Your task to perform on an android device: set the timer Image 0: 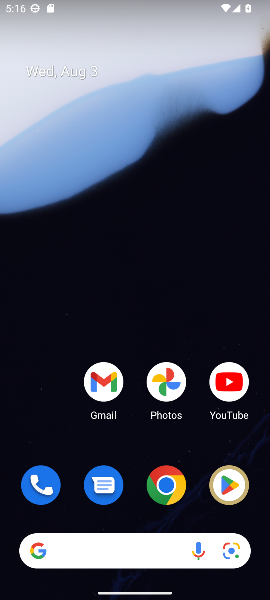
Step 0: drag from (112, 508) to (138, 1)
Your task to perform on an android device: set the timer Image 1: 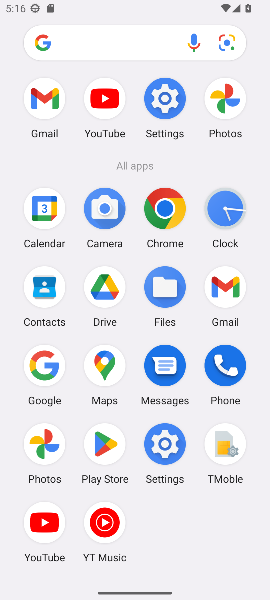
Step 1: click (221, 209)
Your task to perform on an android device: set the timer Image 2: 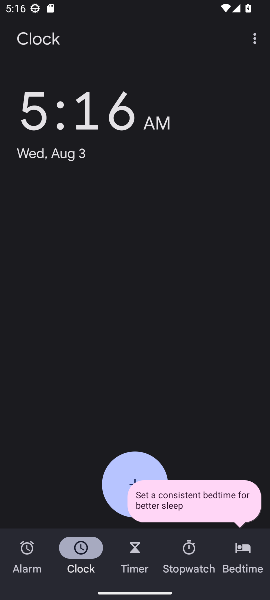
Step 2: click (137, 552)
Your task to perform on an android device: set the timer Image 3: 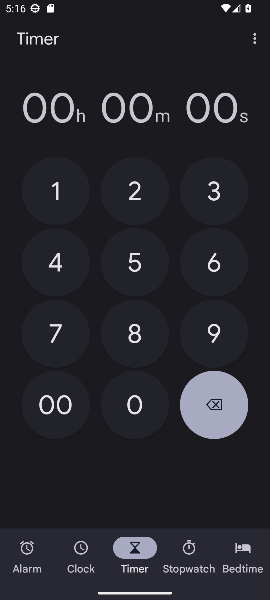
Step 3: click (136, 341)
Your task to perform on an android device: set the timer Image 4: 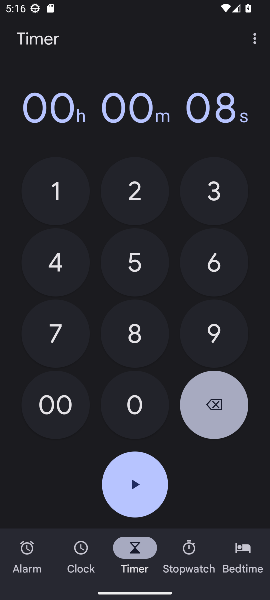
Step 4: click (209, 195)
Your task to perform on an android device: set the timer Image 5: 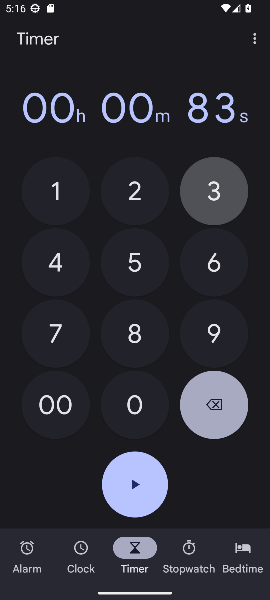
Step 5: click (215, 267)
Your task to perform on an android device: set the timer Image 6: 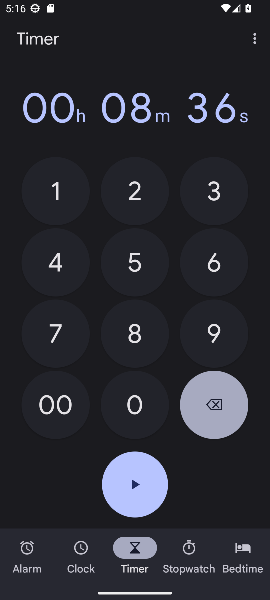
Step 6: click (131, 475)
Your task to perform on an android device: set the timer Image 7: 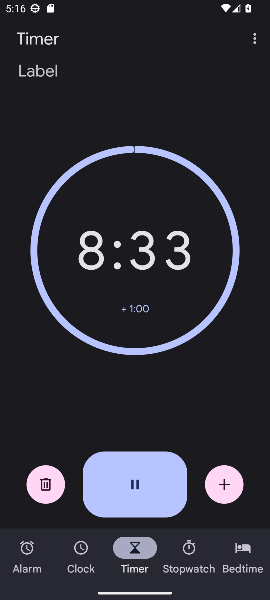
Step 7: task complete